Your task to perform on an android device: turn on the 24-hour format for clock Image 0: 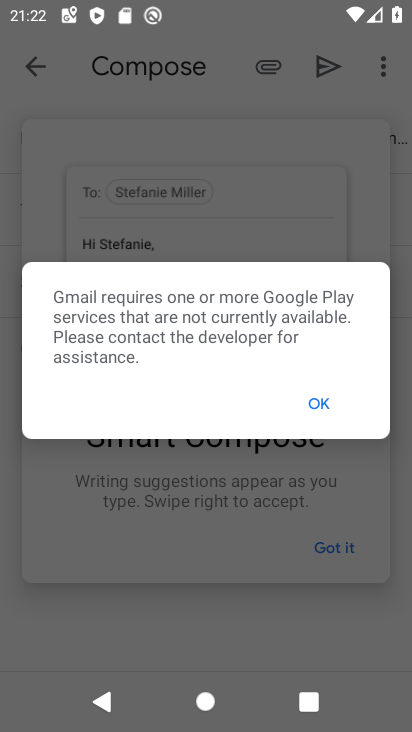
Step 0: press home button
Your task to perform on an android device: turn on the 24-hour format for clock Image 1: 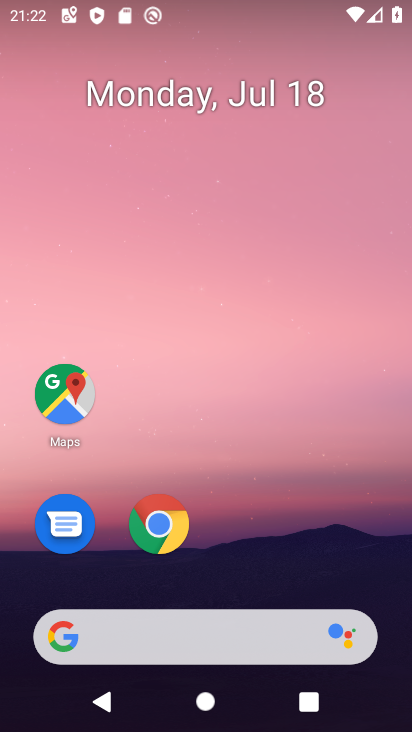
Step 1: drag from (247, 525) to (331, 58)
Your task to perform on an android device: turn on the 24-hour format for clock Image 2: 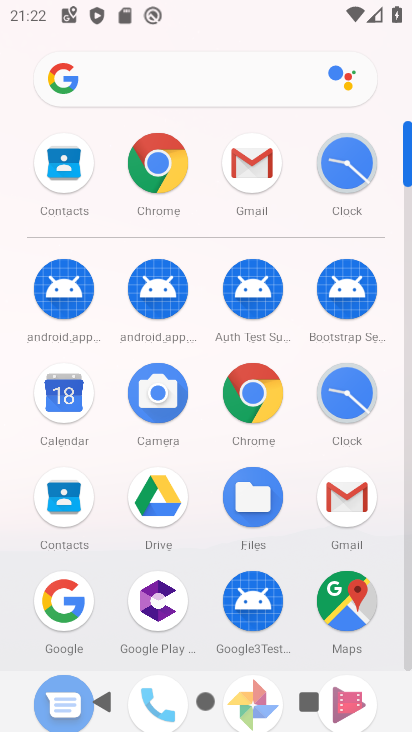
Step 2: click (349, 393)
Your task to perform on an android device: turn on the 24-hour format for clock Image 3: 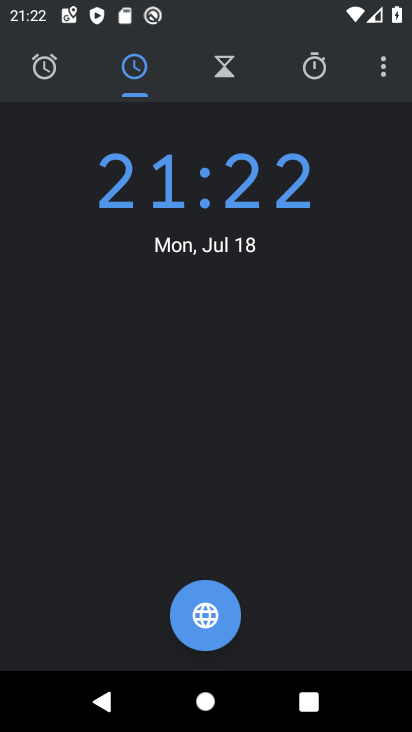
Step 3: click (379, 72)
Your task to perform on an android device: turn on the 24-hour format for clock Image 4: 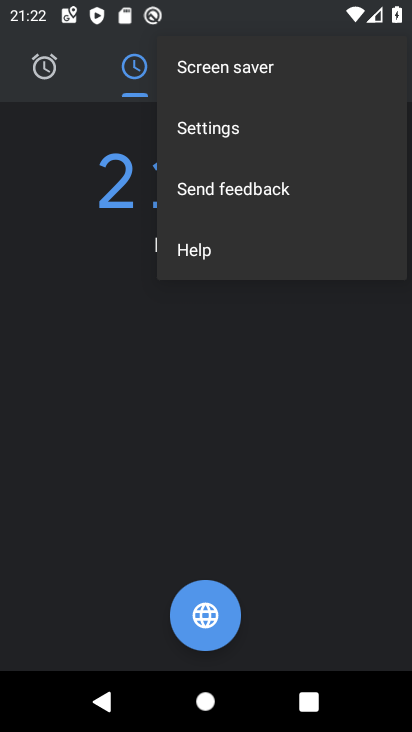
Step 4: click (285, 135)
Your task to perform on an android device: turn on the 24-hour format for clock Image 5: 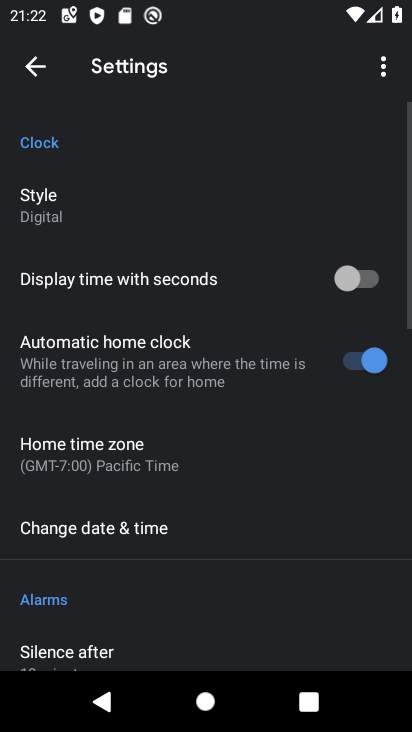
Step 5: click (260, 534)
Your task to perform on an android device: turn on the 24-hour format for clock Image 6: 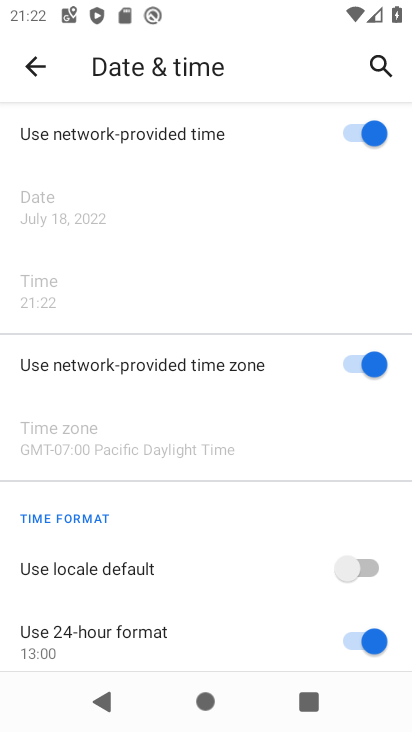
Step 6: click (364, 568)
Your task to perform on an android device: turn on the 24-hour format for clock Image 7: 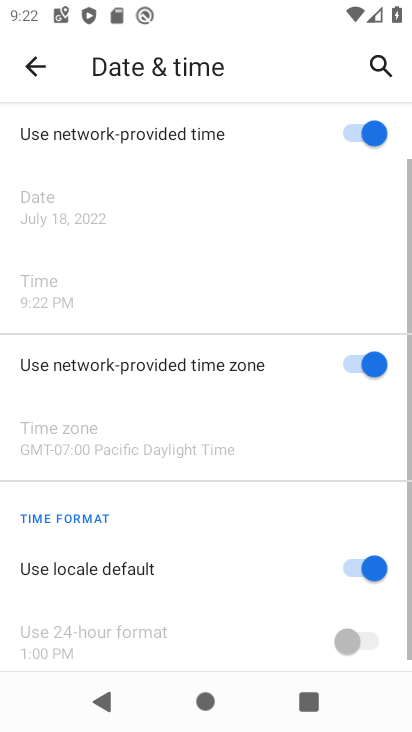
Step 7: click (366, 570)
Your task to perform on an android device: turn on the 24-hour format for clock Image 8: 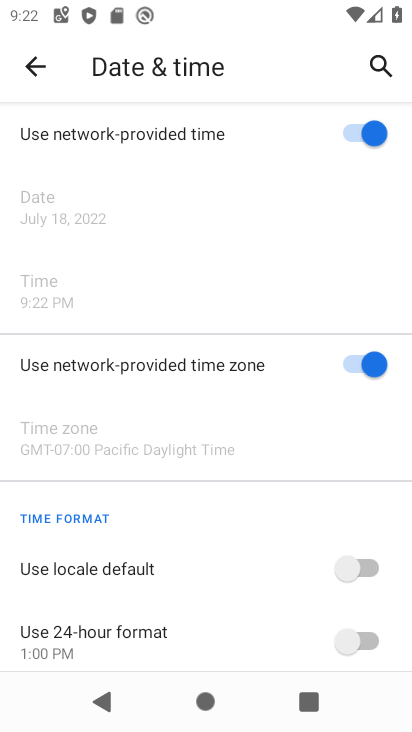
Step 8: click (374, 644)
Your task to perform on an android device: turn on the 24-hour format for clock Image 9: 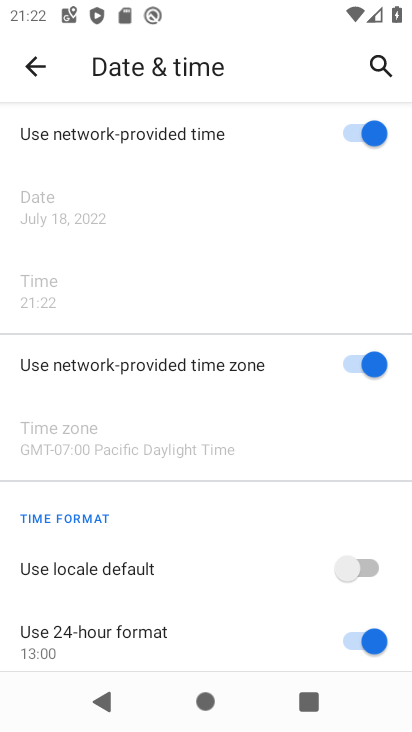
Step 9: task complete